Your task to perform on an android device: Check the news Image 0: 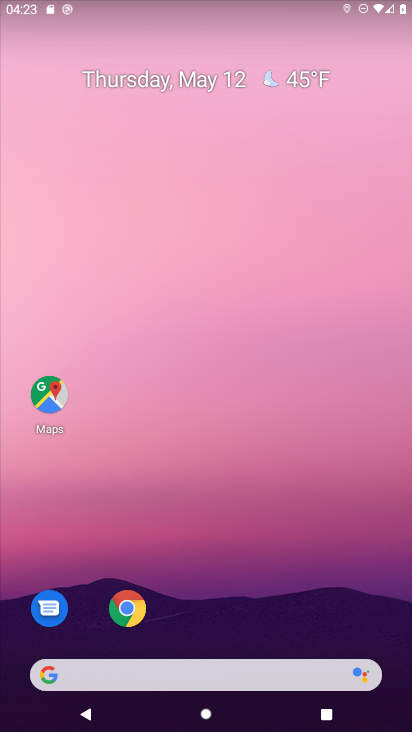
Step 0: drag from (241, 594) to (242, 162)
Your task to perform on an android device: Check the news Image 1: 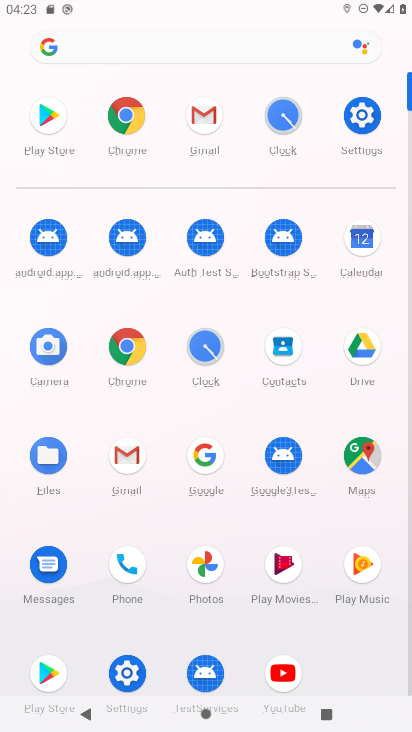
Step 1: click (203, 48)
Your task to perform on an android device: Check the news Image 2: 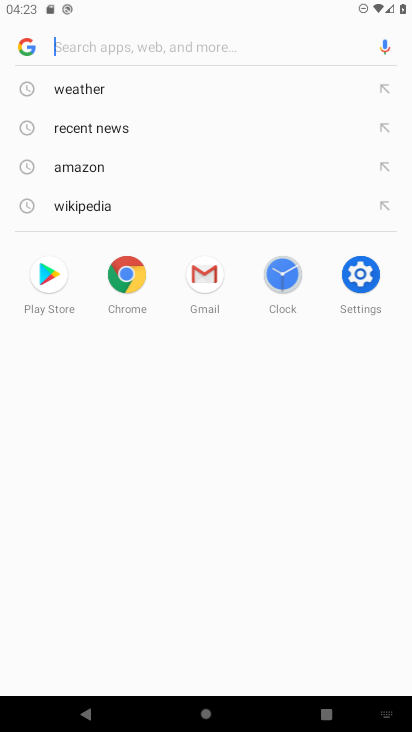
Step 2: click (131, 136)
Your task to perform on an android device: Check the news Image 3: 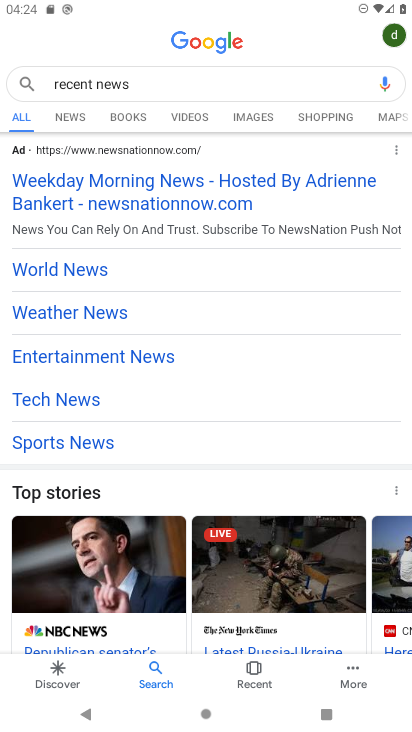
Step 3: task complete